Your task to perform on an android device: Open the Play Movies app and select the watchlist tab. Image 0: 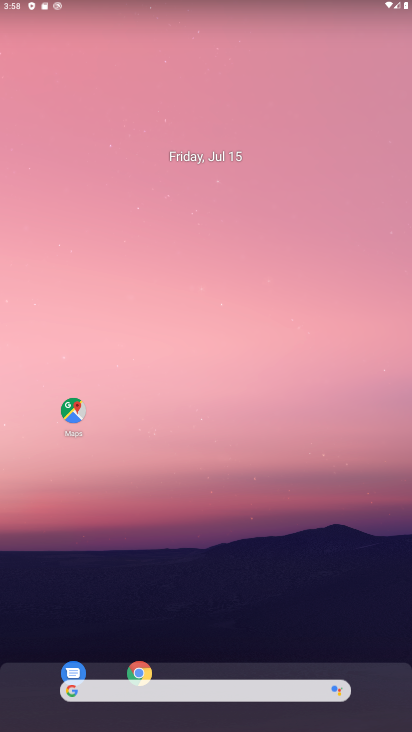
Step 0: drag from (320, 610) to (272, 222)
Your task to perform on an android device: Open the Play Movies app and select the watchlist tab. Image 1: 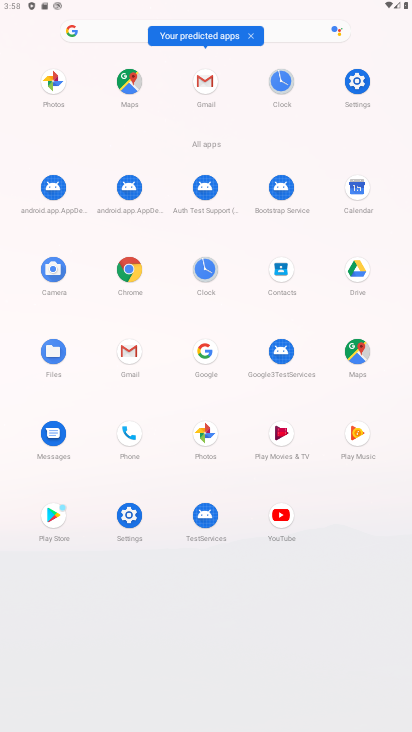
Step 1: click (281, 427)
Your task to perform on an android device: Open the Play Movies app and select the watchlist tab. Image 2: 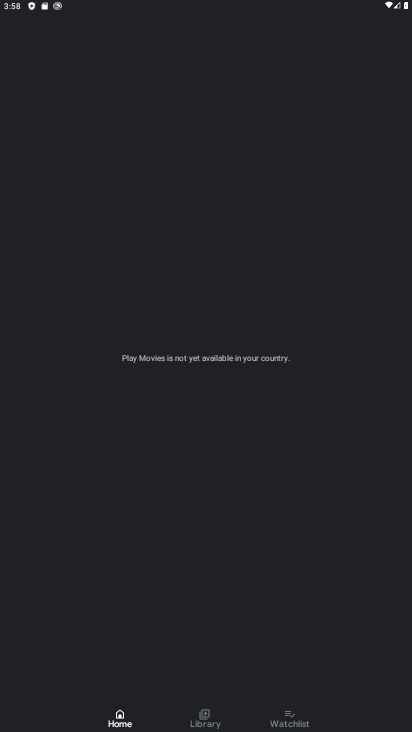
Step 2: click (294, 716)
Your task to perform on an android device: Open the Play Movies app and select the watchlist tab. Image 3: 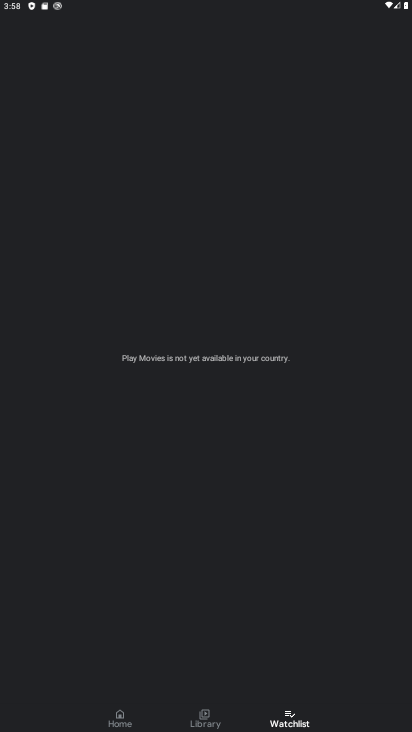
Step 3: task complete